Your task to perform on an android device: open wifi settings Image 0: 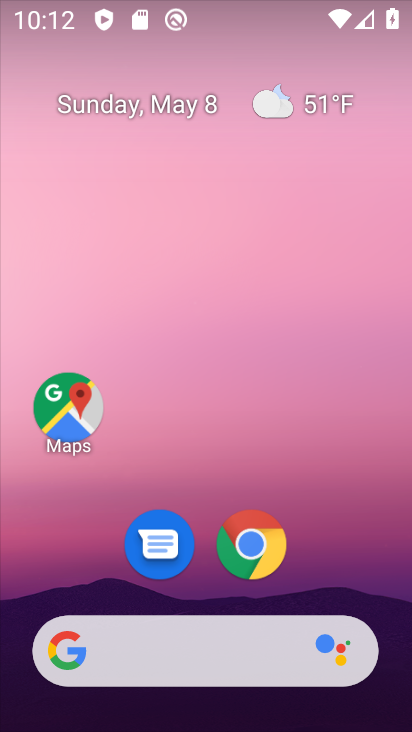
Step 0: drag from (324, 503) to (364, 5)
Your task to perform on an android device: open wifi settings Image 1: 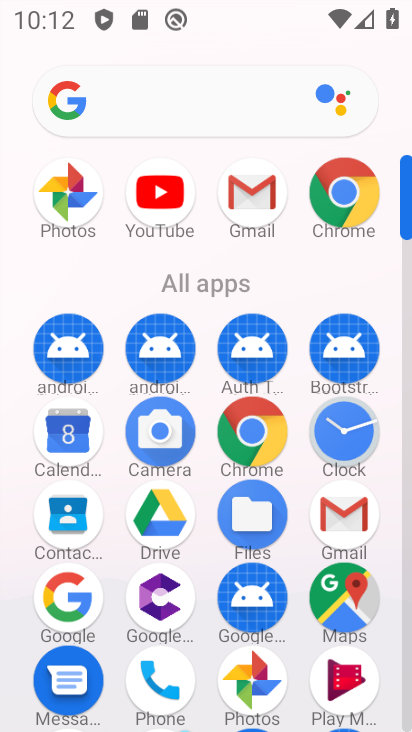
Step 1: drag from (395, 551) to (409, 342)
Your task to perform on an android device: open wifi settings Image 2: 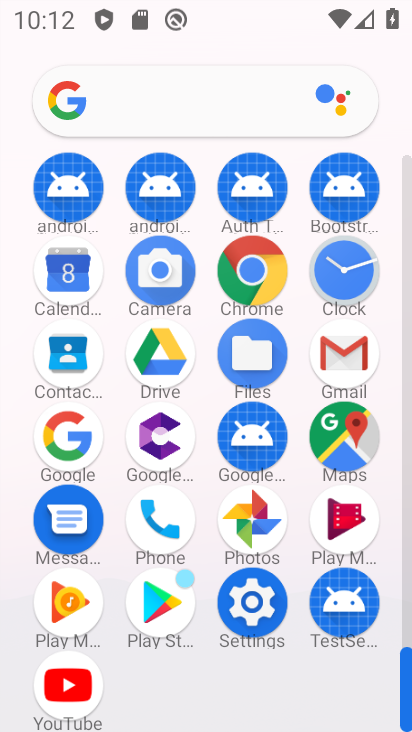
Step 2: click (275, 672)
Your task to perform on an android device: open wifi settings Image 3: 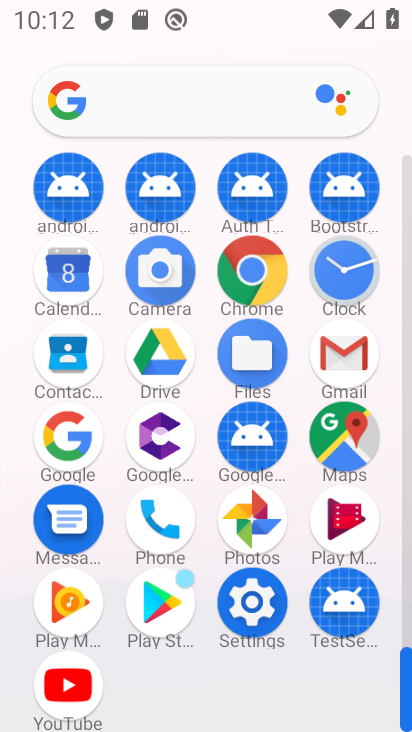
Step 3: click (247, 629)
Your task to perform on an android device: open wifi settings Image 4: 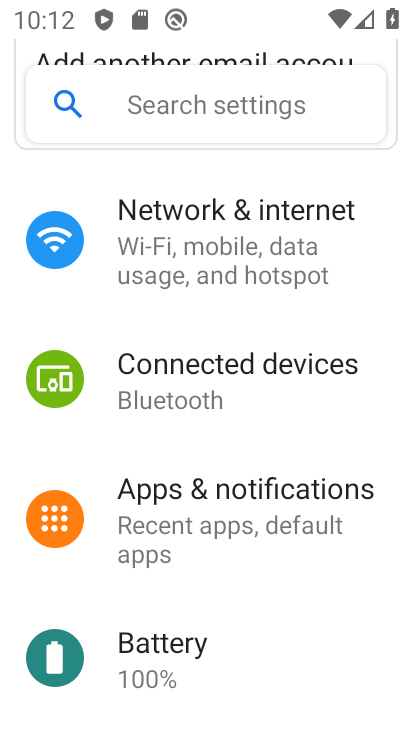
Step 4: drag from (213, 231) to (189, 515)
Your task to perform on an android device: open wifi settings Image 5: 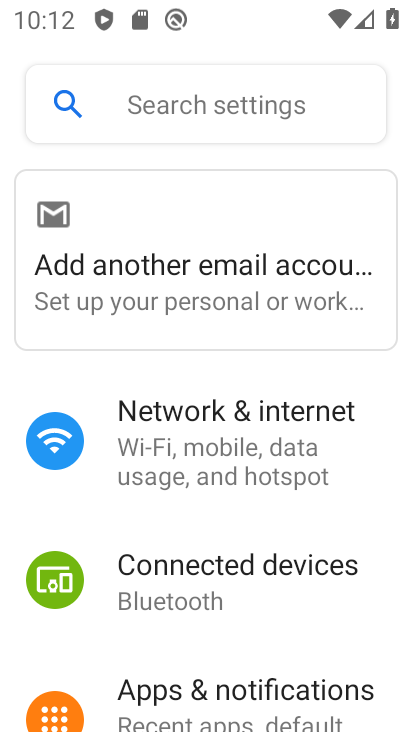
Step 5: click (170, 476)
Your task to perform on an android device: open wifi settings Image 6: 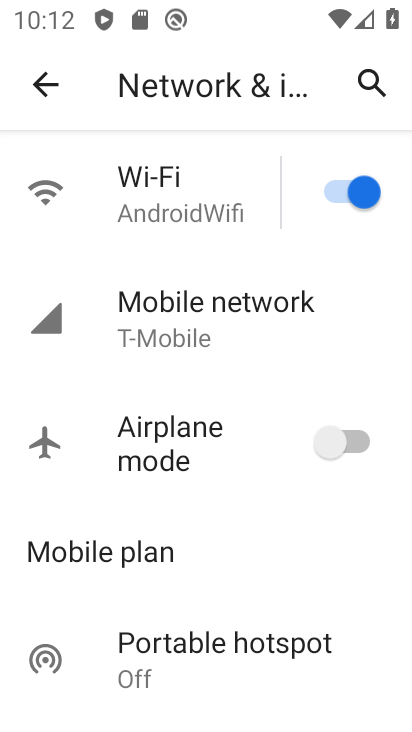
Step 6: drag from (152, 546) to (184, 102)
Your task to perform on an android device: open wifi settings Image 7: 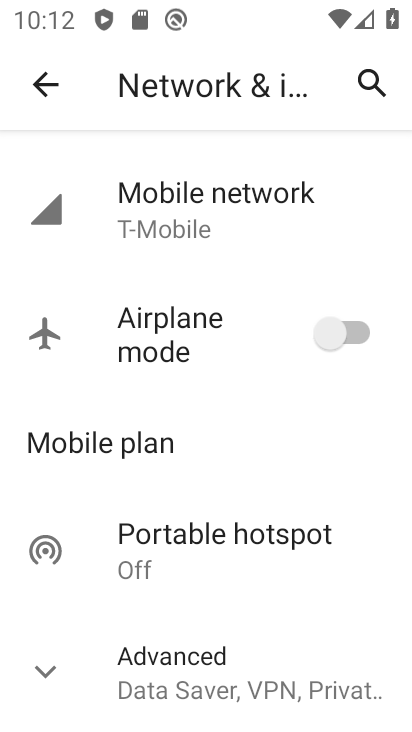
Step 7: drag from (199, 501) to (267, 230)
Your task to perform on an android device: open wifi settings Image 8: 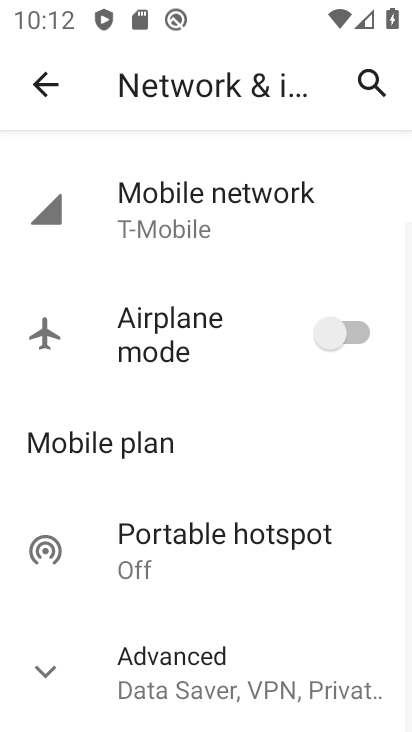
Step 8: click (193, 222)
Your task to perform on an android device: open wifi settings Image 9: 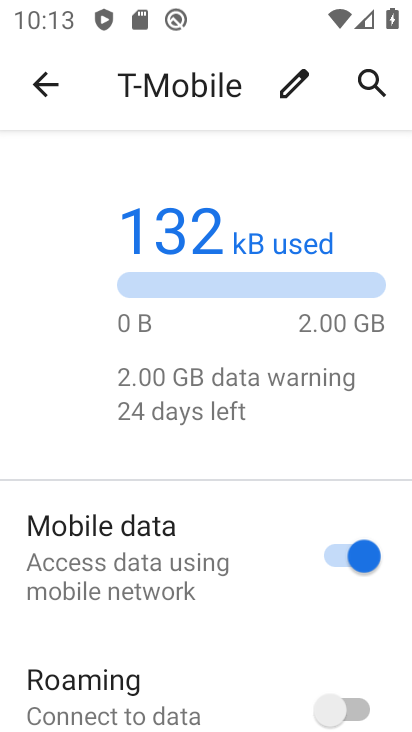
Step 9: click (227, 275)
Your task to perform on an android device: open wifi settings Image 10: 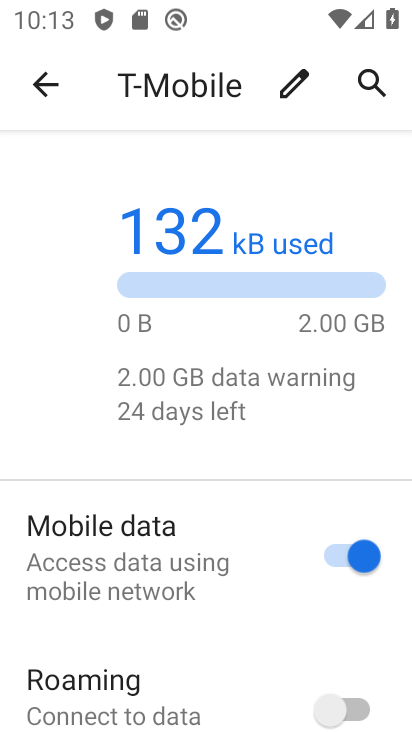
Step 10: task complete